Your task to perform on an android device: open a new tab in the chrome app Image 0: 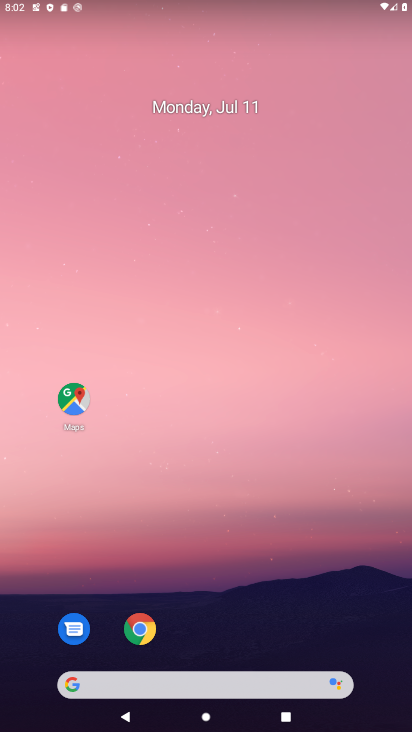
Step 0: click (143, 625)
Your task to perform on an android device: open a new tab in the chrome app Image 1: 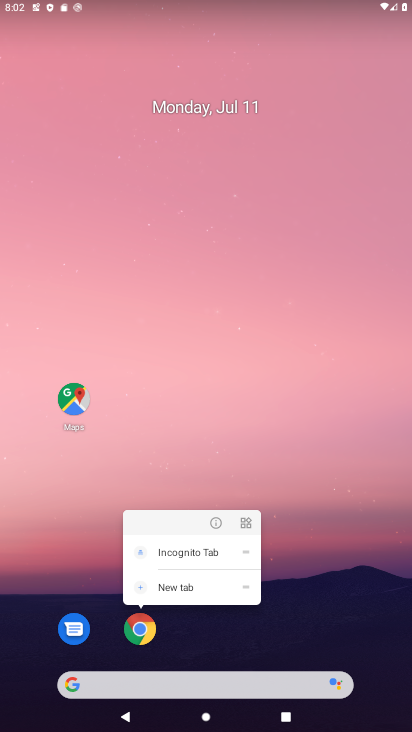
Step 1: click (147, 627)
Your task to perform on an android device: open a new tab in the chrome app Image 2: 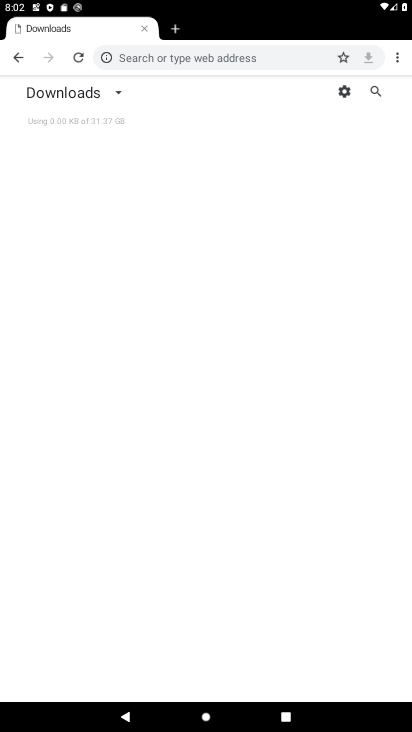
Step 2: click (174, 28)
Your task to perform on an android device: open a new tab in the chrome app Image 3: 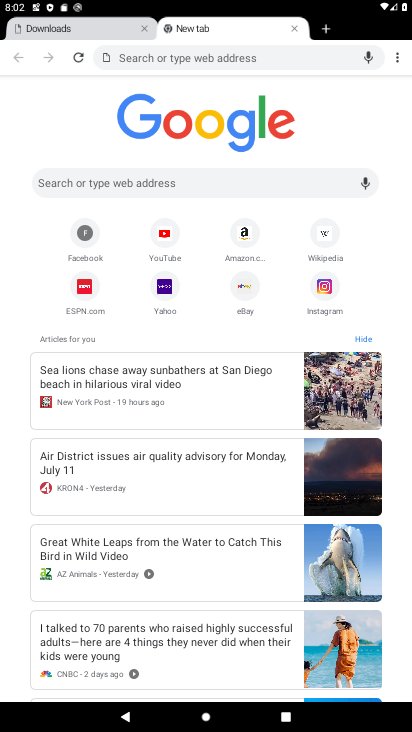
Step 3: task complete